Your task to perform on an android device: Open calendar and show me the fourth week of next month Image 0: 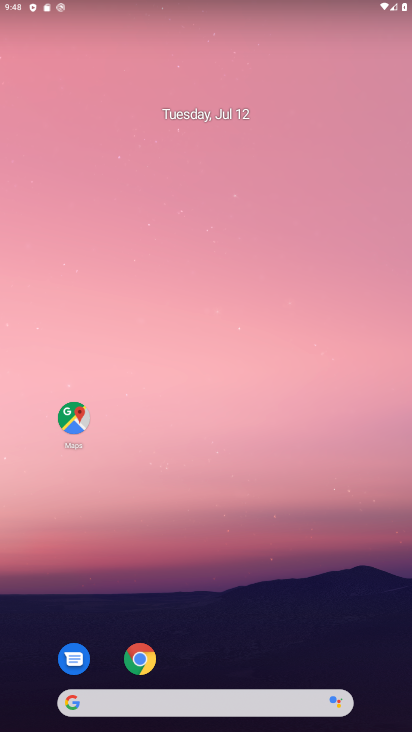
Step 0: drag from (394, 705) to (315, 184)
Your task to perform on an android device: Open calendar and show me the fourth week of next month Image 1: 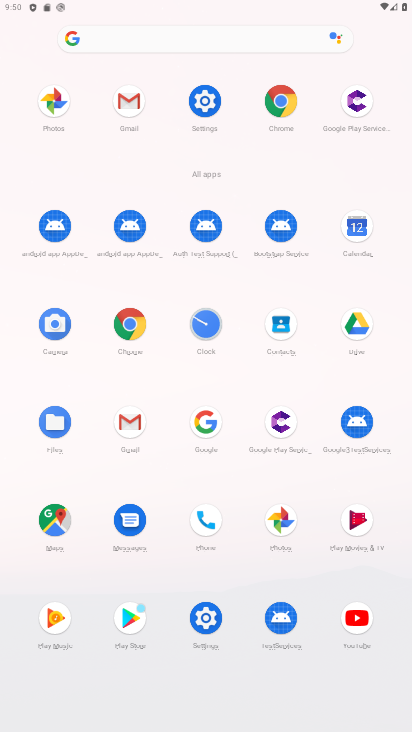
Step 1: click (357, 225)
Your task to perform on an android device: Open calendar and show me the fourth week of next month Image 2: 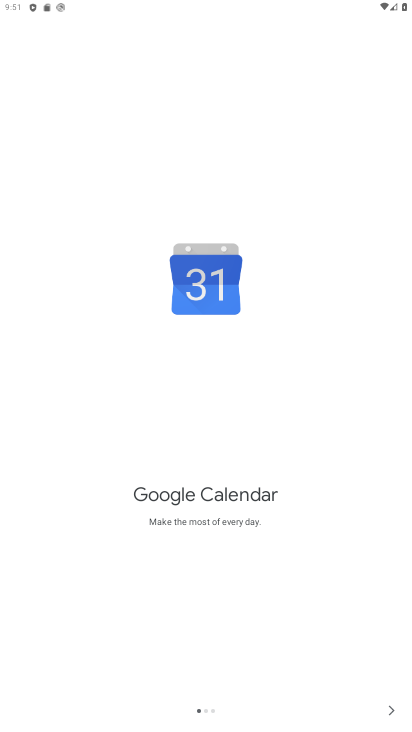
Step 2: click (391, 708)
Your task to perform on an android device: Open calendar and show me the fourth week of next month Image 3: 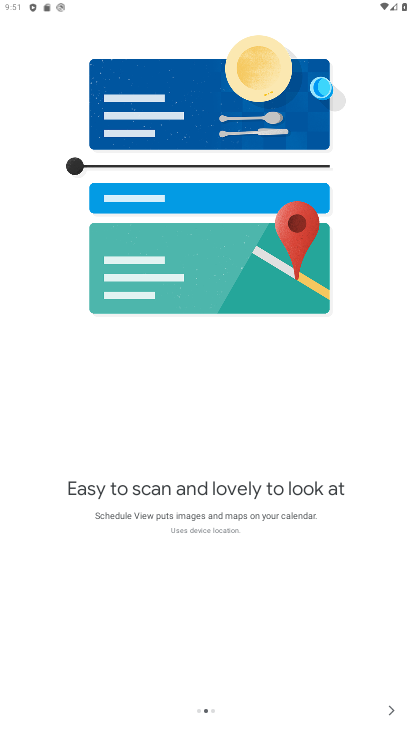
Step 3: click (391, 708)
Your task to perform on an android device: Open calendar and show me the fourth week of next month Image 4: 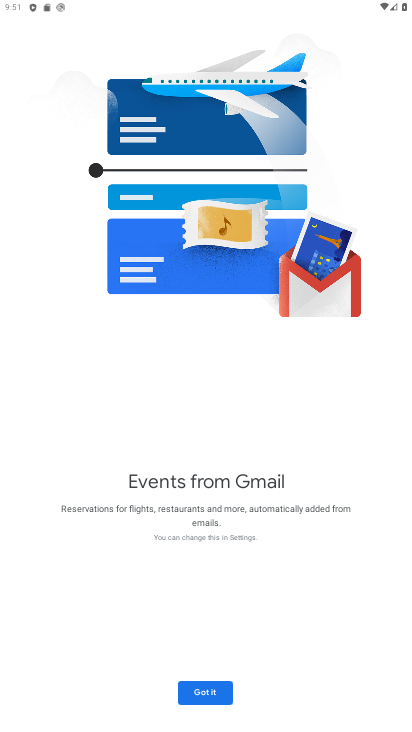
Step 4: click (199, 696)
Your task to perform on an android device: Open calendar and show me the fourth week of next month Image 5: 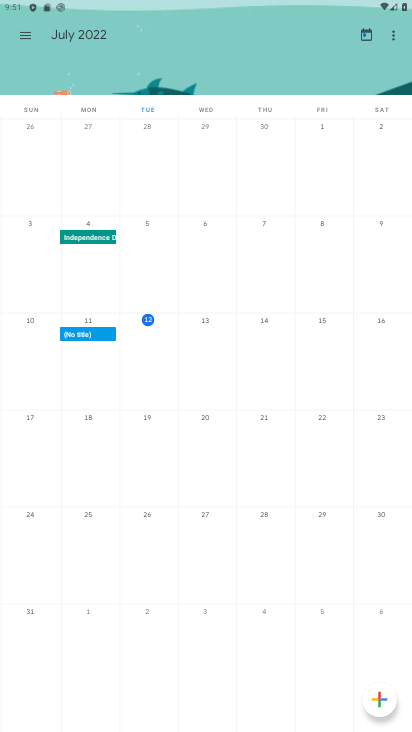
Step 5: task complete